Your task to perform on an android device: turn off translation in the chrome app Image 0: 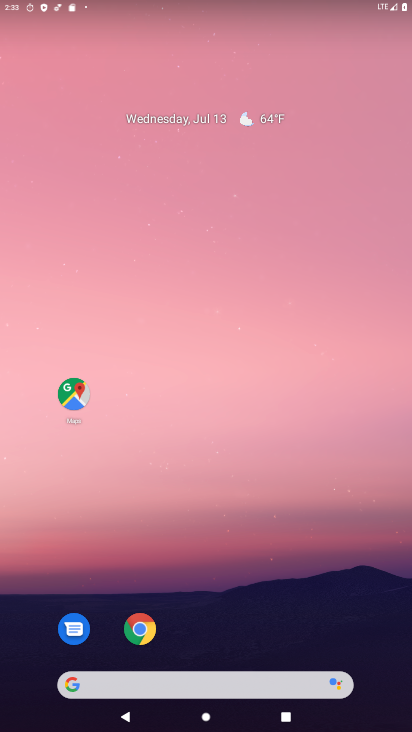
Step 0: drag from (191, 692) to (184, 33)
Your task to perform on an android device: turn off translation in the chrome app Image 1: 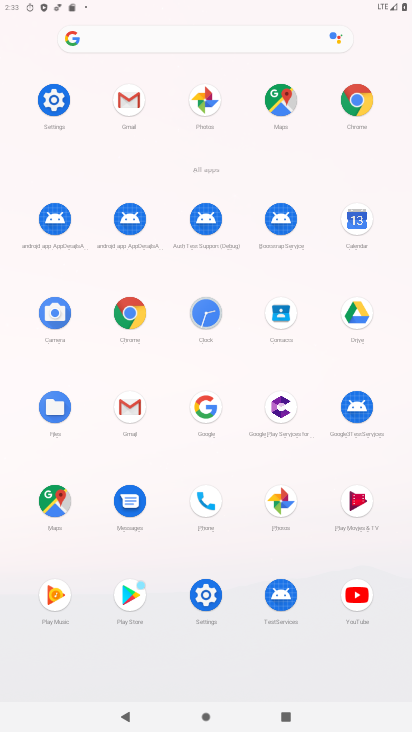
Step 1: click (129, 304)
Your task to perform on an android device: turn off translation in the chrome app Image 2: 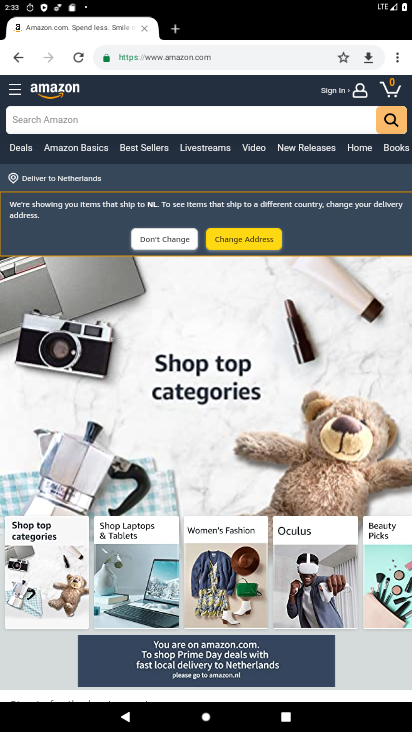
Step 2: drag from (395, 102) to (287, 347)
Your task to perform on an android device: turn off translation in the chrome app Image 3: 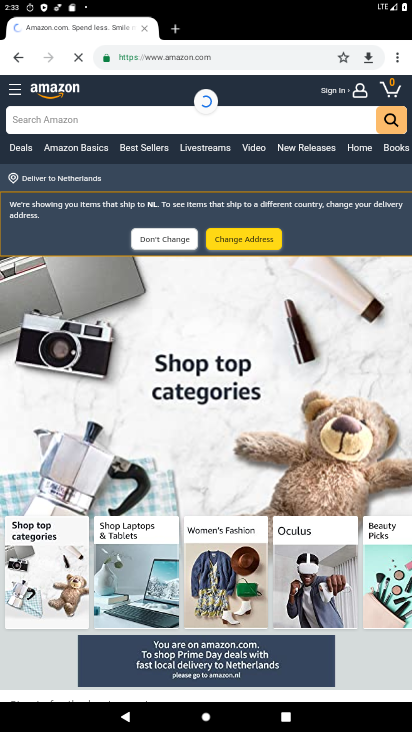
Step 3: click (399, 50)
Your task to perform on an android device: turn off translation in the chrome app Image 4: 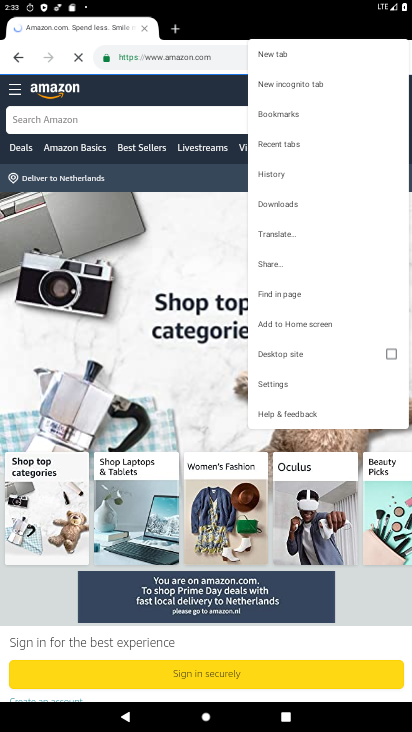
Step 4: click (283, 377)
Your task to perform on an android device: turn off translation in the chrome app Image 5: 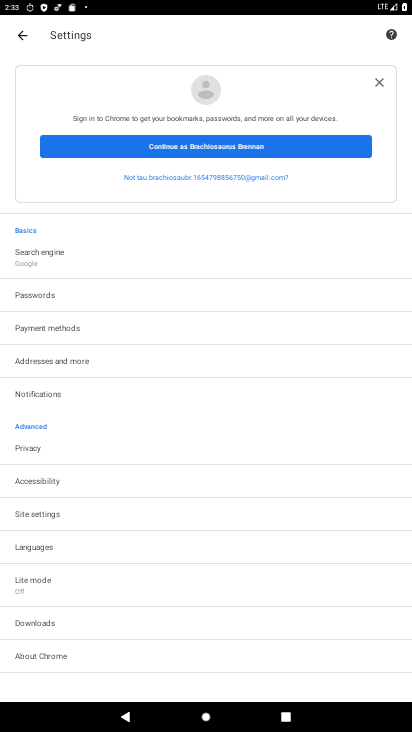
Step 5: click (36, 548)
Your task to perform on an android device: turn off translation in the chrome app Image 6: 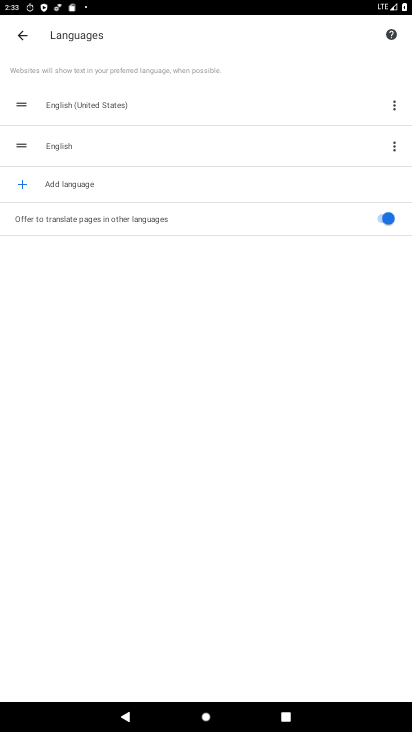
Step 6: click (388, 217)
Your task to perform on an android device: turn off translation in the chrome app Image 7: 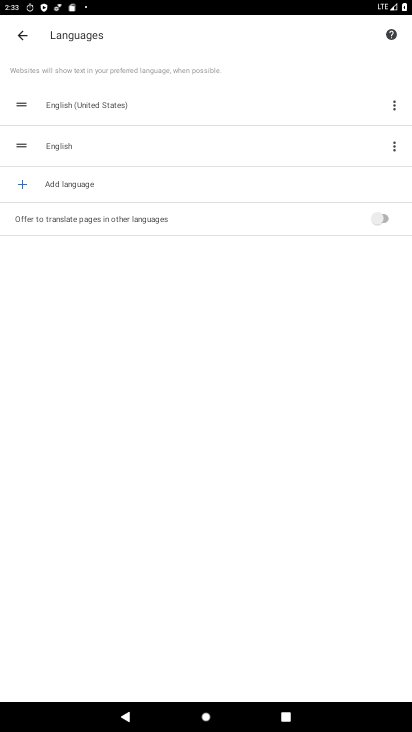
Step 7: task complete